Your task to perform on an android device: Empty the shopping cart on costco. Search for razer nari on costco, select the first entry, and add it to the cart. Image 0: 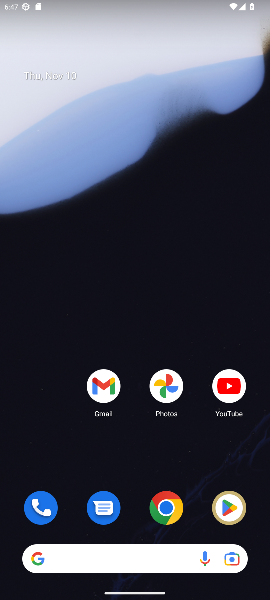
Step 0: click (173, 506)
Your task to perform on an android device: Empty the shopping cart on costco. Search for razer nari on costco, select the first entry, and add it to the cart. Image 1: 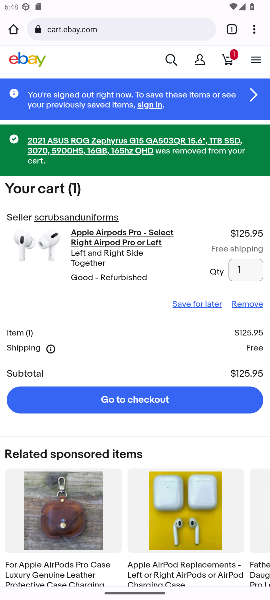
Step 1: click (109, 30)
Your task to perform on an android device: Empty the shopping cart on costco. Search for razer nari on costco, select the first entry, and add it to the cart. Image 2: 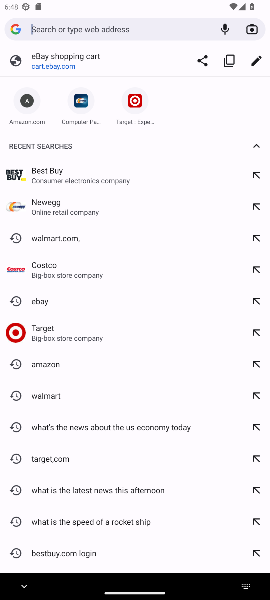
Step 2: click (45, 266)
Your task to perform on an android device: Empty the shopping cart on costco. Search for razer nari on costco, select the first entry, and add it to the cart. Image 3: 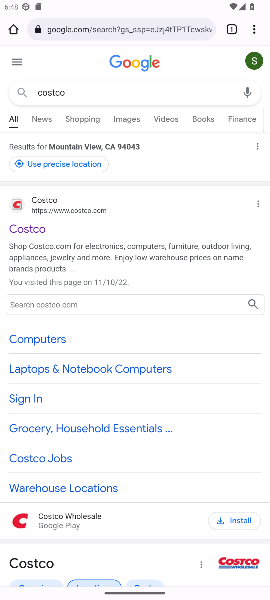
Step 3: click (32, 227)
Your task to perform on an android device: Empty the shopping cart on costco. Search for razer nari on costco, select the first entry, and add it to the cart. Image 4: 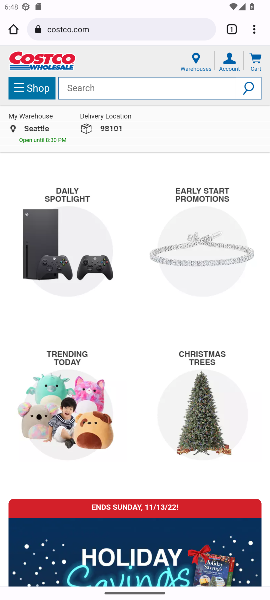
Step 4: click (123, 83)
Your task to perform on an android device: Empty the shopping cart on costco. Search for razer nari on costco, select the first entry, and add it to the cart. Image 5: 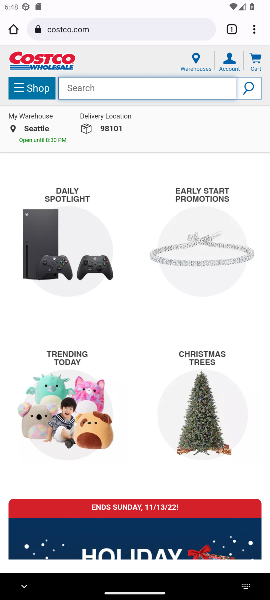
Step 5: type "razer nari "
Your task to perform on an android device: Empty the shopping cart on costco. Search for razer nari on costco, select the first entry, and add it to the cart. Image 6: 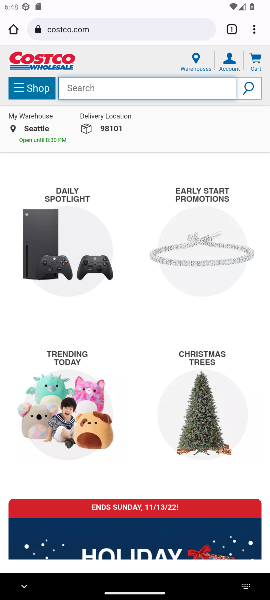
Step 6: press enter
Your task to perform on an android device: Empty the shopping cart on costco. Search for razer nari on costco, select the first entry, and add it to the cart. Image 7: 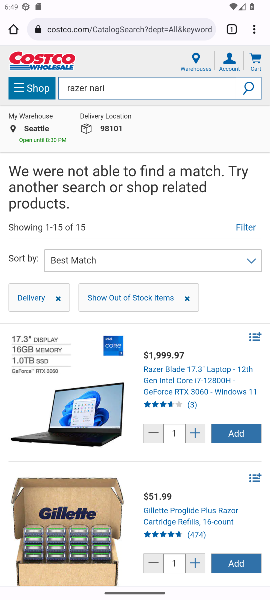
Step 7: task complete